Your task to perform on an android device: Is it going to rain tomorrow? Image 0: 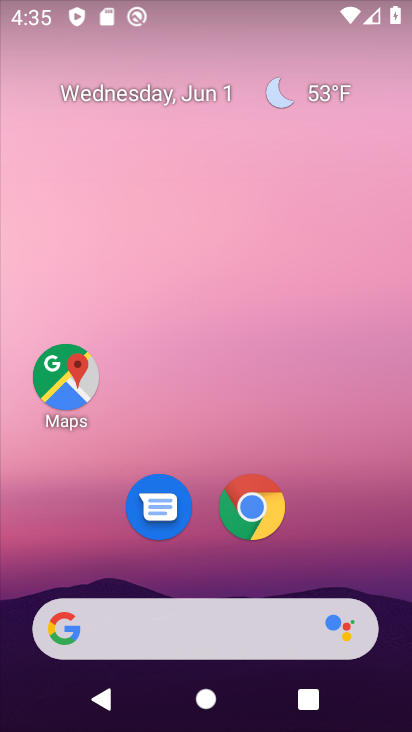
Step 0: click (331, 109)
Your task to perform on an android device: Is it going to rain tomorrow? Image 1: 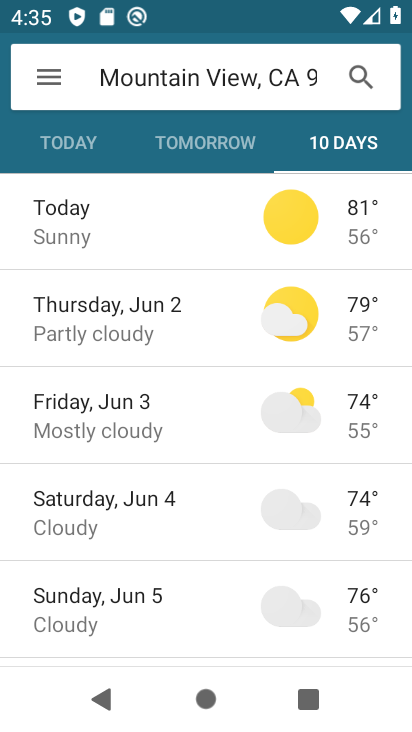
Step 1: click (192, 131)
Your task to perform on an android device: Is it going to rain tomorrow? Image 2: 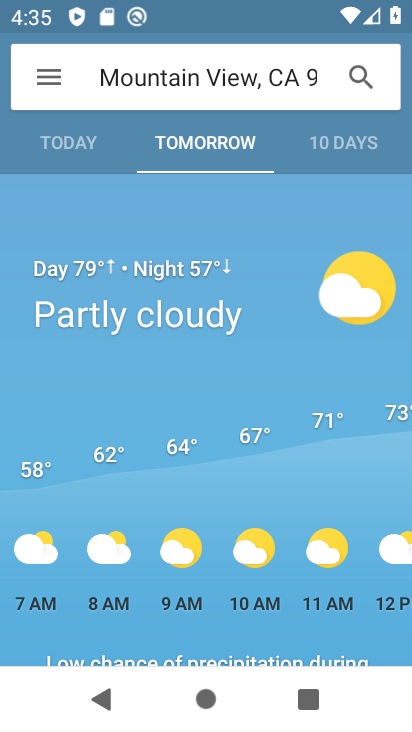
Step 2: task complete